Your task to perform on an android device: check data usage Image 0: 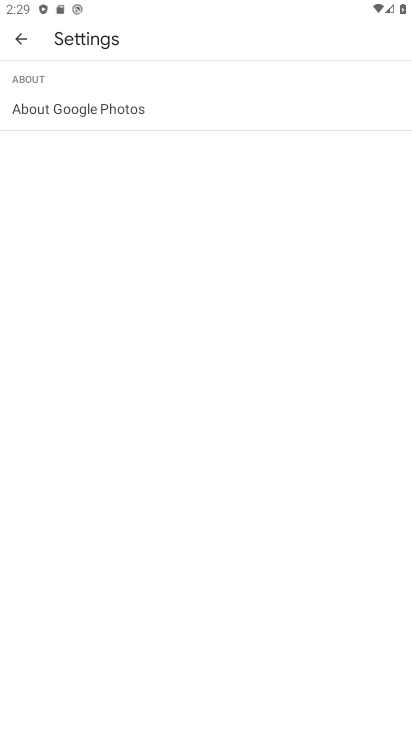
Step 0: press home button
Your task to perform on an android device: check data usage Image 1: 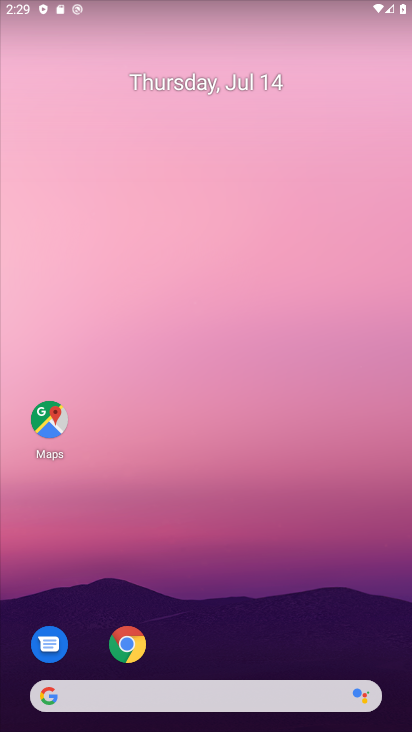
Step 1: drag from (221, 654) to (189, 130)
Your task to perform on an android device: check data usage Image 2: 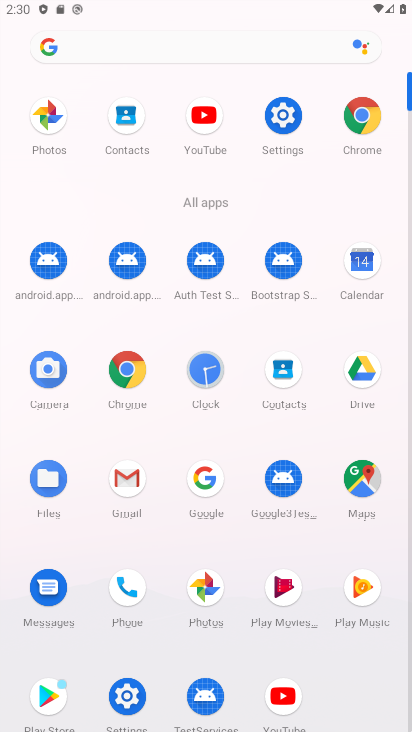
Step 2: click (278, 95)
Your task to perform on an android device: check data usage Image 3: 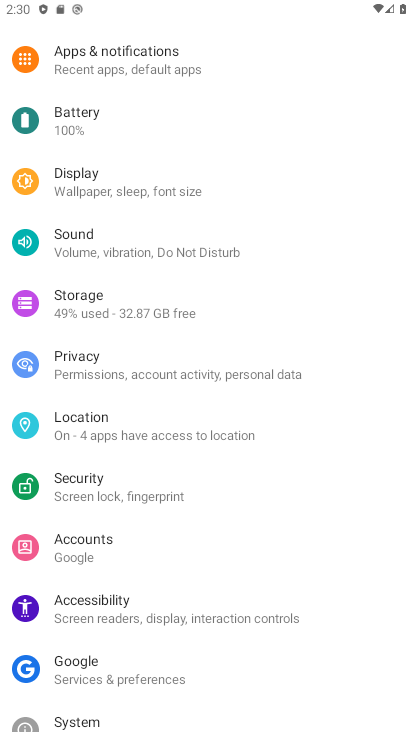
Step 3: drag from (176, 97) to (155, 470)
Your task to perform on an android device: check data usage Image 4: 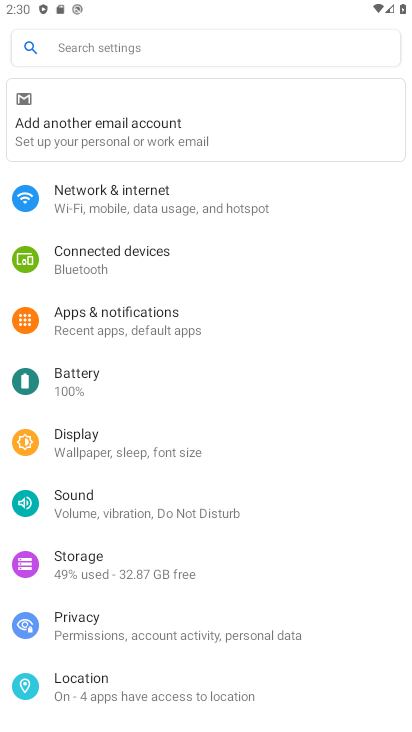
Step 4: click (159, 193)
Your task to perform on an android device: check data usage Image 5: 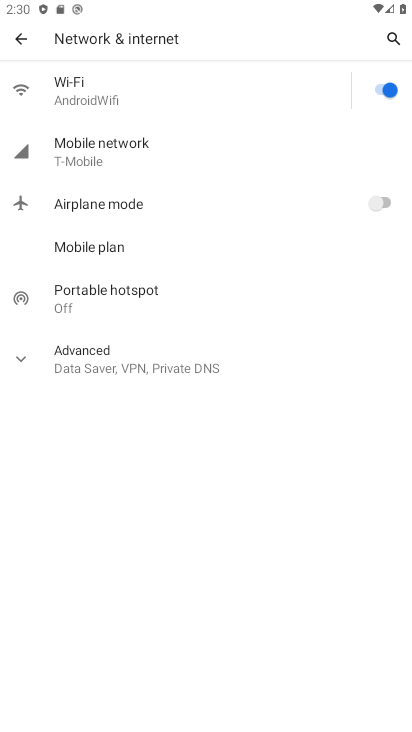
Step 5: click (133, 81)
Your task to perform on an android device: check data usage Image 6: 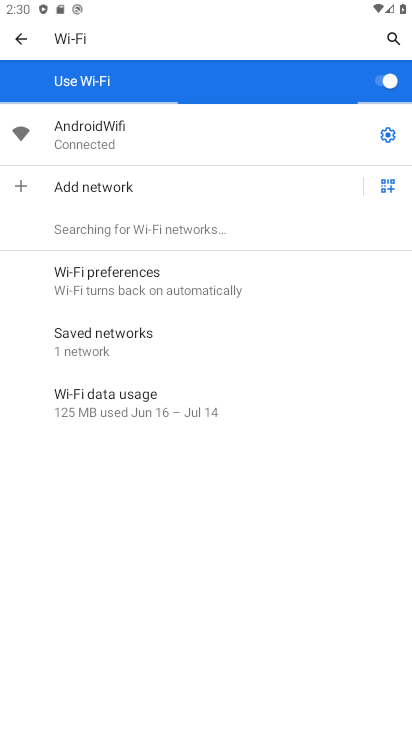
Step 6: click (165, 402)
Your task to perform on an android device: check data usage Image 7: 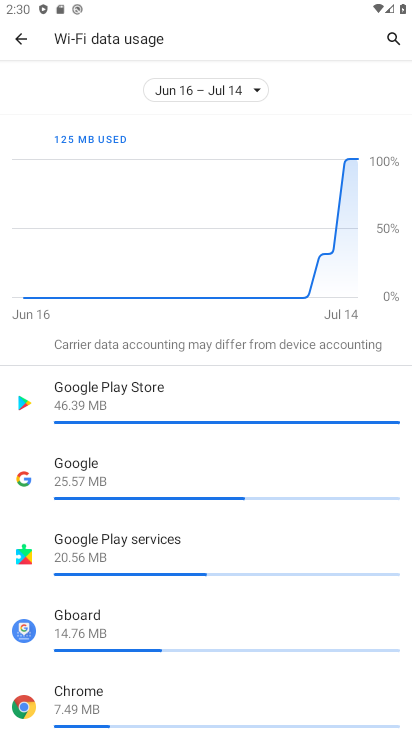
Step 7: task complete